Your task to perform on an android device: open the mobile data screen to see how much data has been used Image 0: 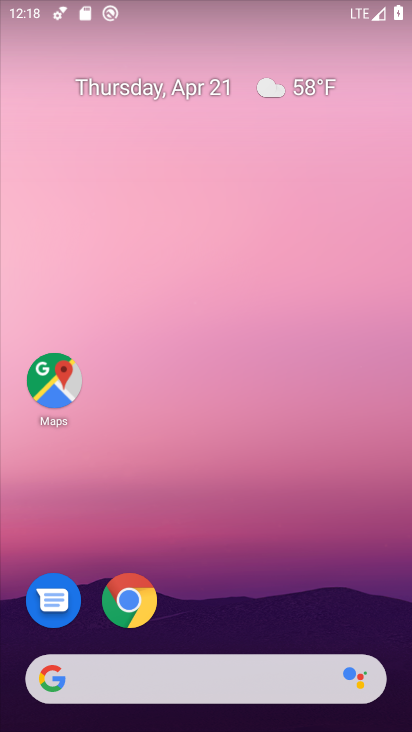
Step 0: drag from (297, 567) to (346, 107)
Your task to perform on an android device: open the mobile data screen to see how much data has been used Image 1: 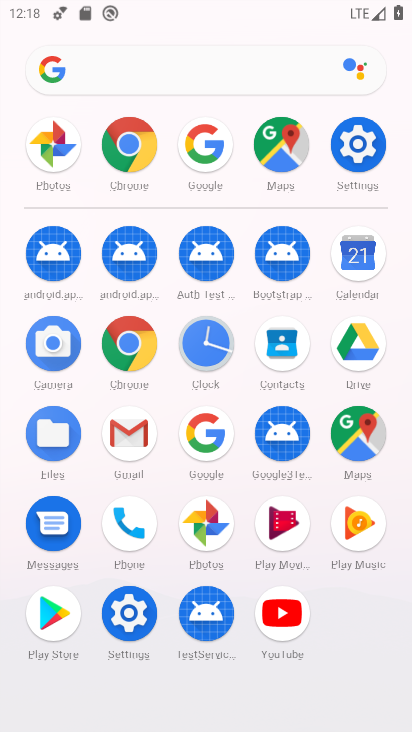
Step 1: click (368, 143)
Your task to perform on an android device: open the mobile data screen to see how much data has been used Image 2: 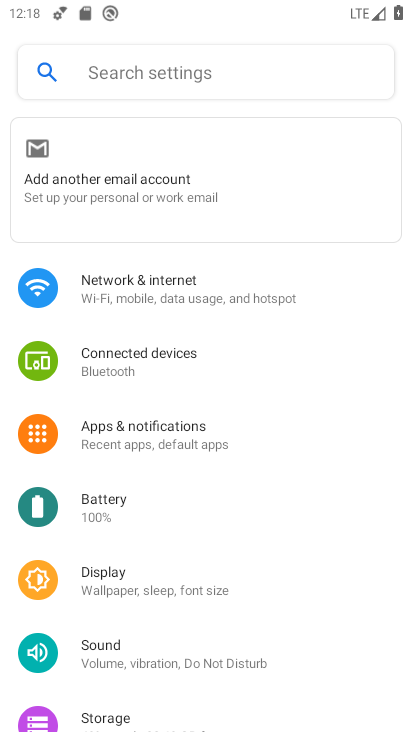
Step 2: click (240, 286)
Your task to perform on an android device: open the mobile data screen to see how much data has been used Image 3: 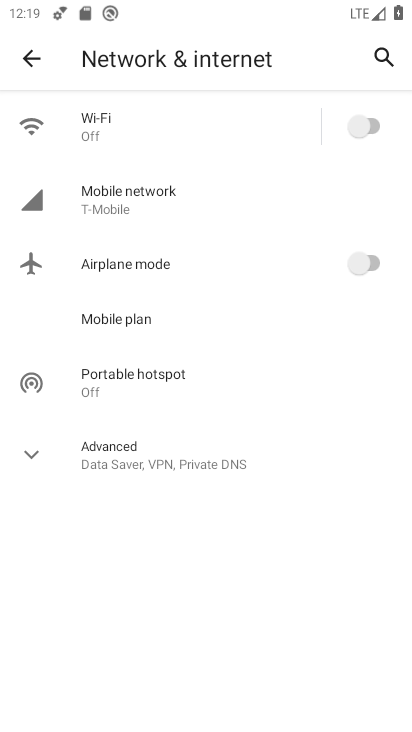
Step 3: click (209, 191)
Your task to perform on an android device: open the mobile data screen to see how much data has been used Image 4: 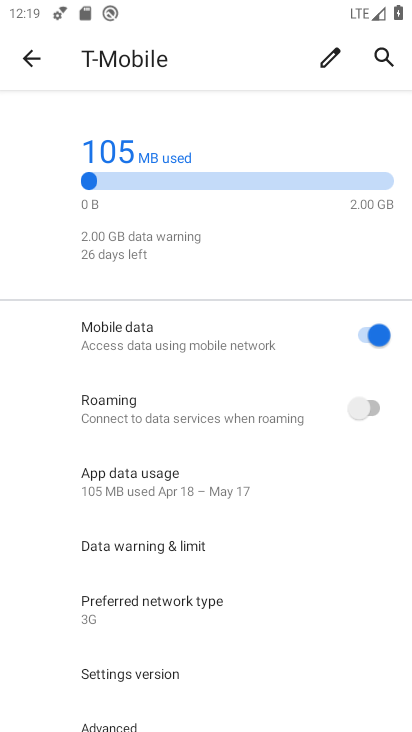
Step 4: task complete